Your task to perform on an android device: What's the weather going to be this weekend? Image 0: 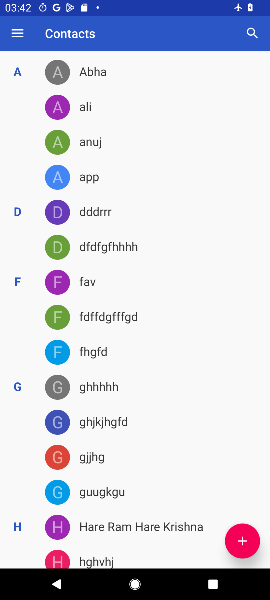
Step 0: press home button
Your task to perform on an android device: What's the weather going to be this weekend? Image 1: 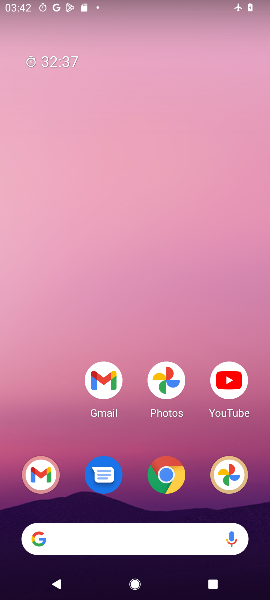
Step 1: drag from (67, 437) to (52, 237)
Your task to perform on an android device: What's the weather going to be this weekend? Image 2: 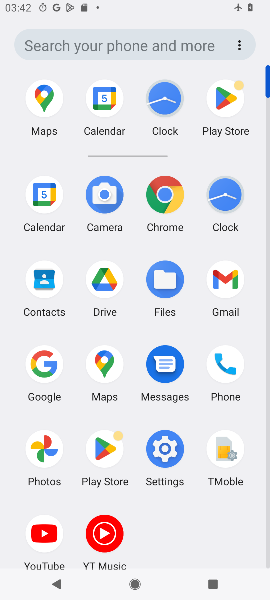
Step 2: click (46, 370)
Your task to perform on an android device: What's the weather going to be this weekend? Image 3: 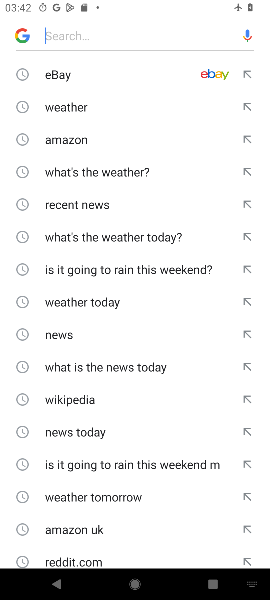
Step 3: click (83, 109)
Your task to perform on an android device: What's the weather going to be this weekend? Image 4: 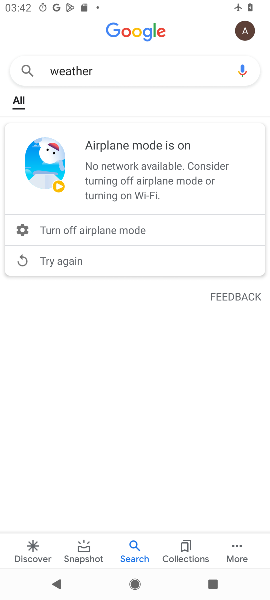
Step 4: task complete